Your task to perform on an android device: When is my next meeting? Image 0: 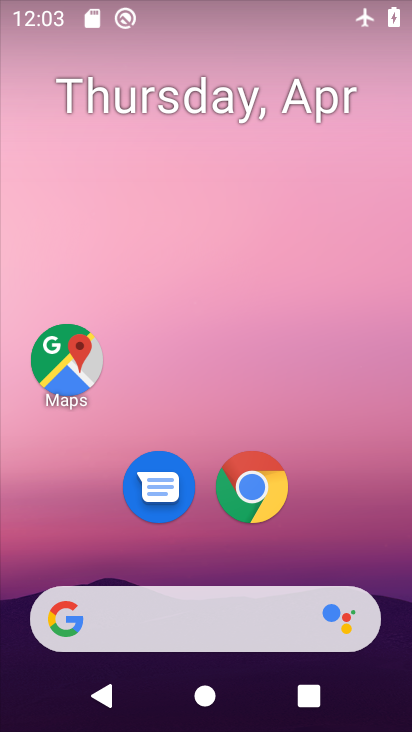
Step 0: drag from (239, 657) to (293, 167)
Your task to perform on an android device: When is my next meeting? Image 1: 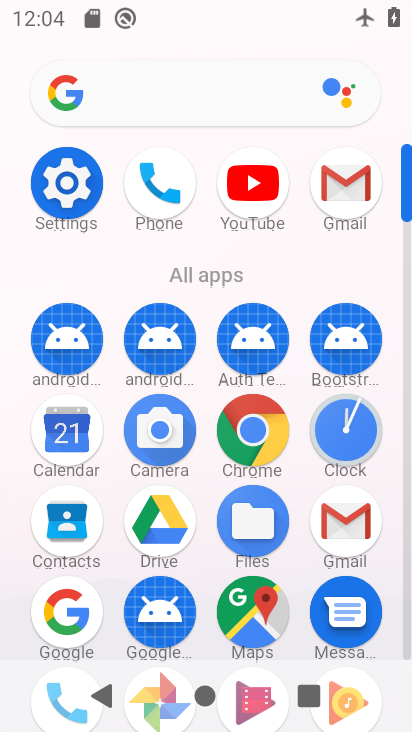
Step 1: click (65, 427)
Your task to perform on an android device: When is my next meeting? Image 2: 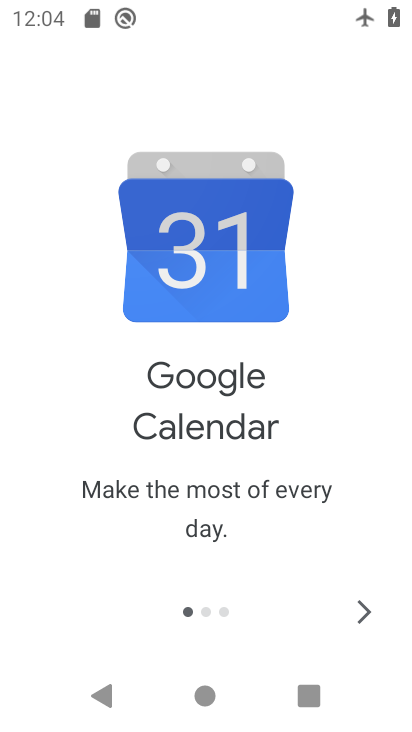
Step 2: click (341, 606)
Your task to perform on an android device: When is my next meeting? Image 3: 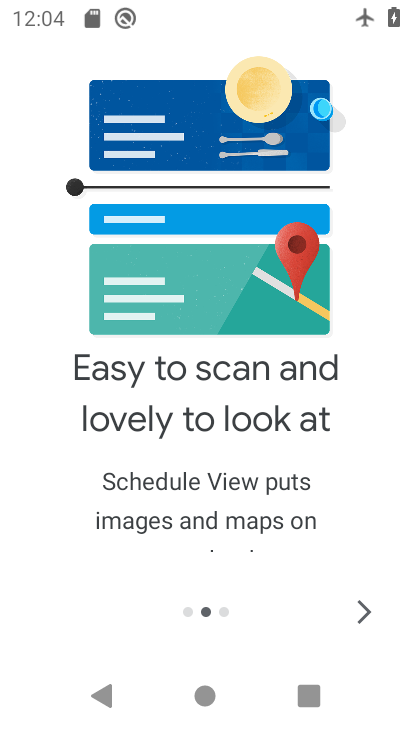
Step 3: click (335, 609)
Your task to perform on an android device: When is my next meeting? Image 4: 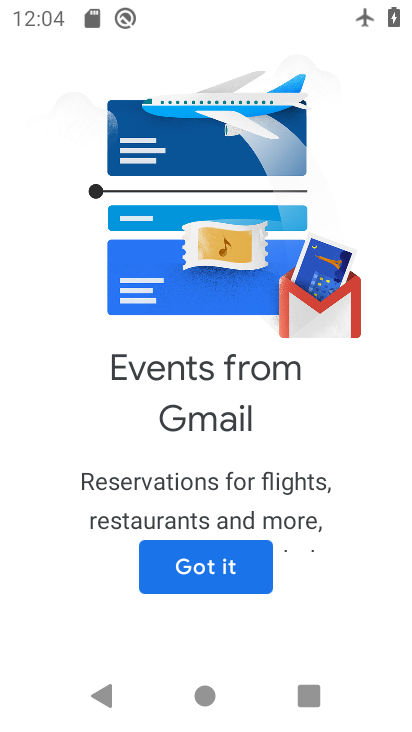
Step 4: click (213, 557)
Your task to perform on an android device: When is my next meeting? Image 5: 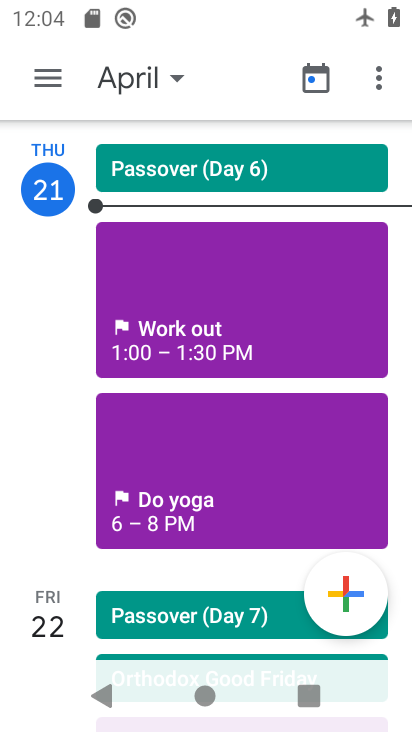
Step 5: task complete